Your task to perform on an android device: change text size in settings app Image 0: 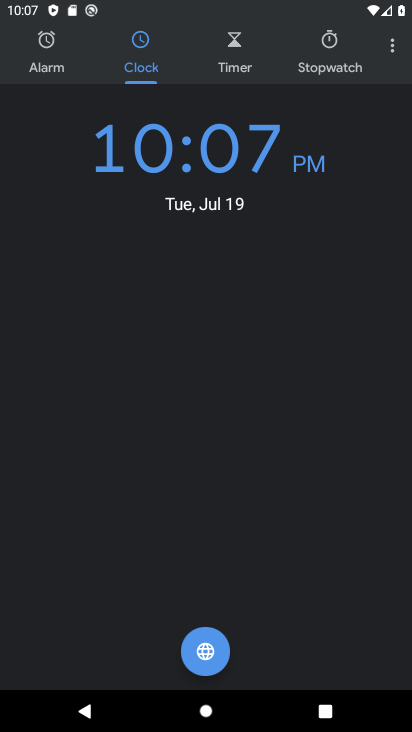
Step 0: press home button
Your task to perform on an android device: change text size in settings app Image 1: 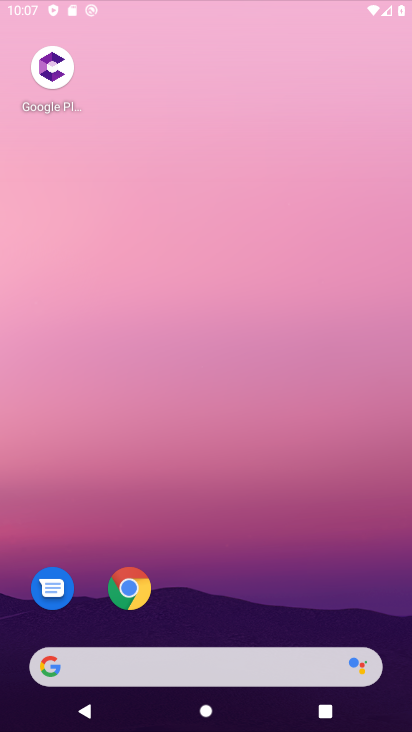
Step 1: drag from (369, 654) to (31, 61)
Your task to perform on an android device: change text size in settings app Image 2: 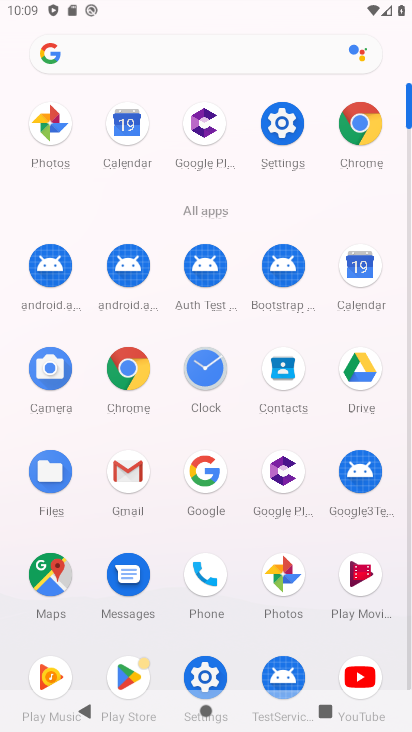
Step 2: click (192, 679)
Your task to perform on an android device: change text size in settings app Image 3: 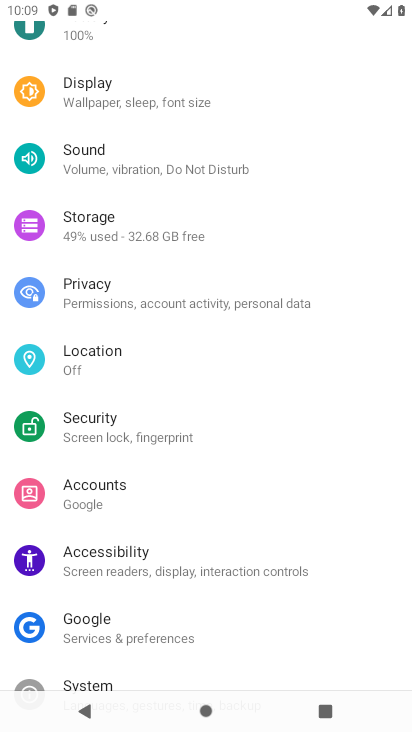
Step 3: click (90, 94)
Your task to perform on an android device: change text size in settings app Image 4: 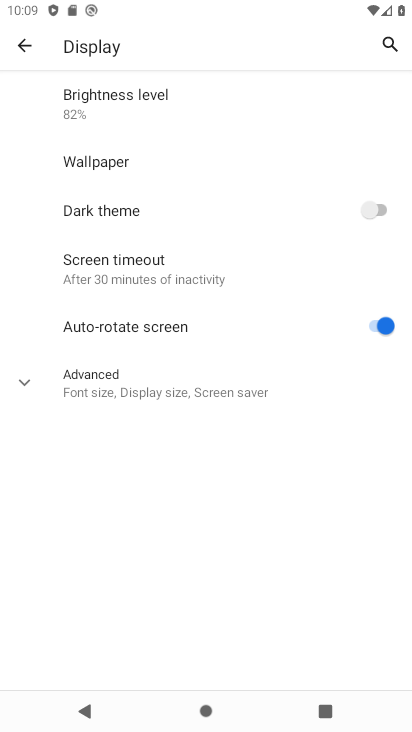
Step 4: click (107, 389)
Your task to perform on an android device: change text size in settings app Image 5: 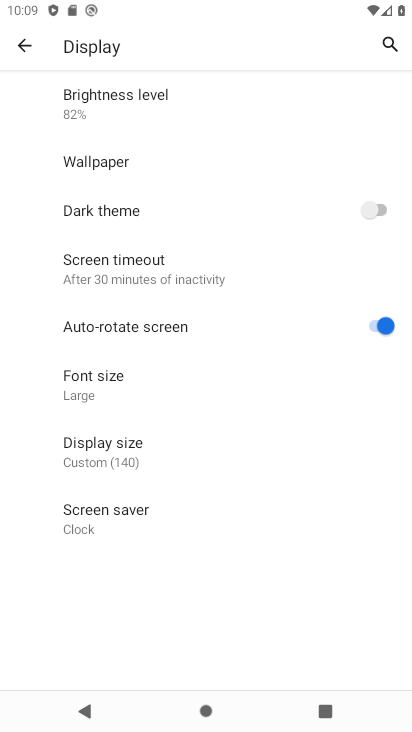
Step 5: click (93, 385)
Your task to perform on an android device: change text size in settings app Image 6: 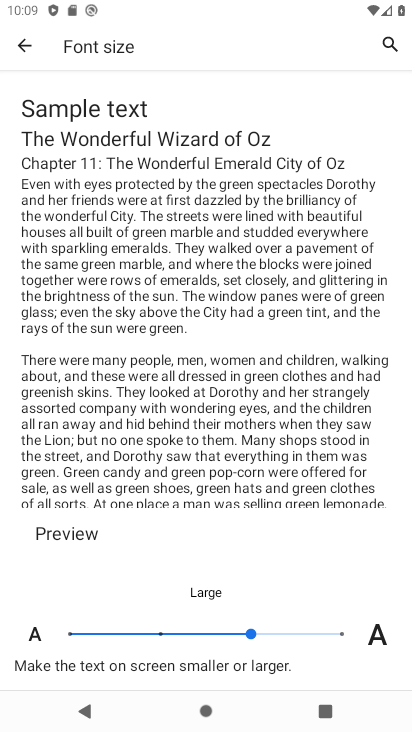
Step 6: click (341, 634)
Your task to perform on an android device: change text size in settings app Image 7: 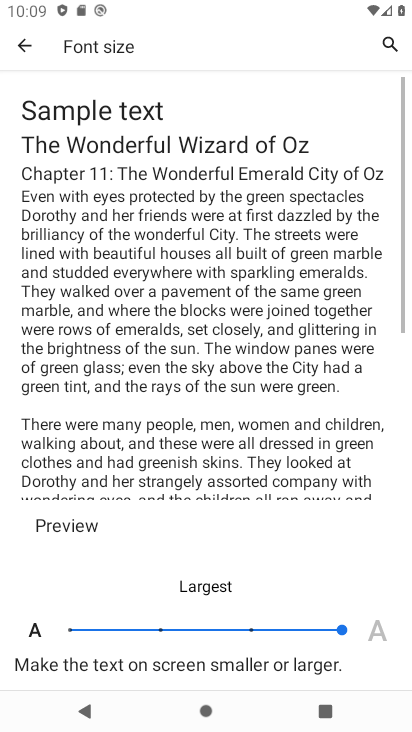
Step 7: task complete